Your task to perform on an android device: turn pop-ups off in chrome Image 0: 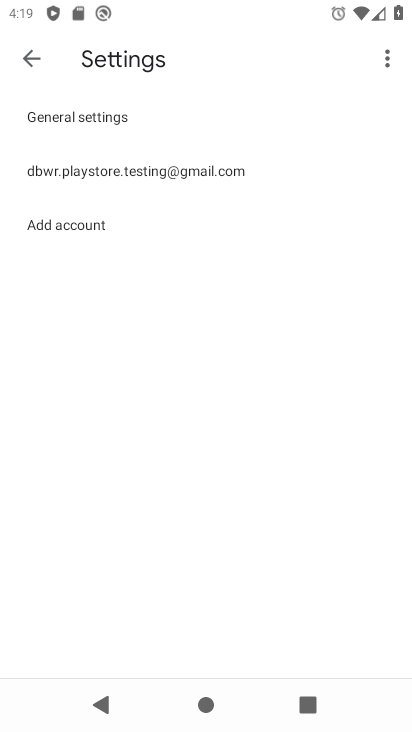
Step 0: drag from (307, 453) to (287, 187)
Your task to perform on an android device: turn pop-ups off in chrome Image 1: 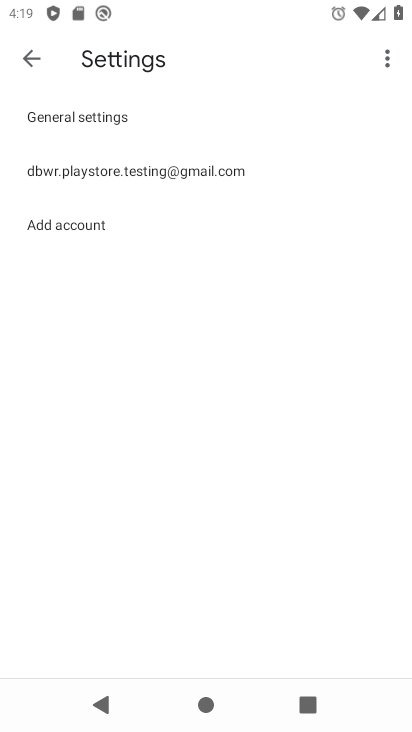
Step 1: press home button
Your task to perform on an android device: turn pop-ups off in chrome Image 2: 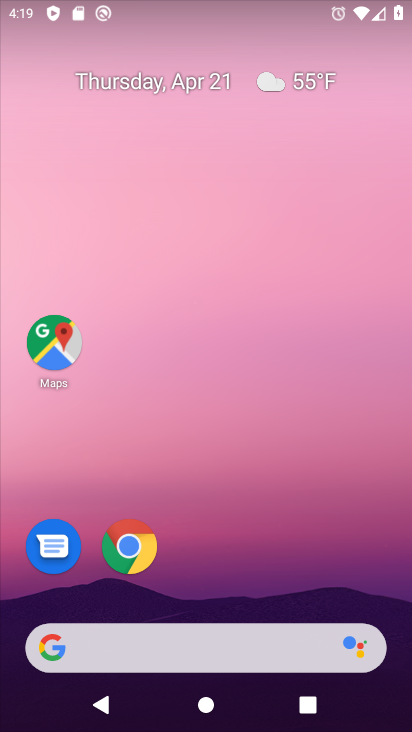
Step 2: drag from (253, 510) to (238, 182)
Your task to perform on an android device: turn pop-ups off in chrome Image 3: 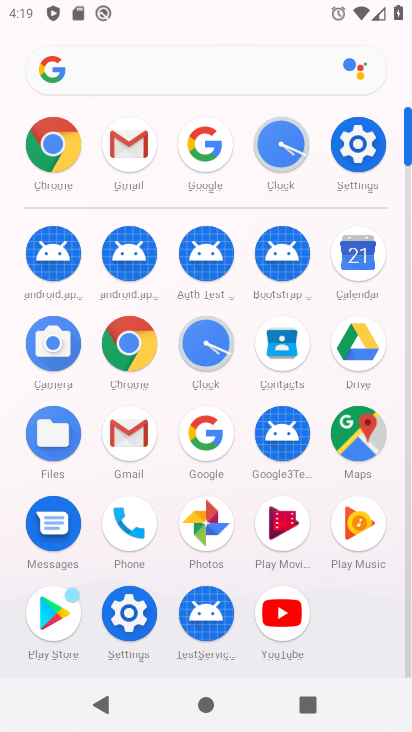
Step 3: click (129, 343)
Your task to perform on an android device: turn pop-ups off in chrome Image 4: 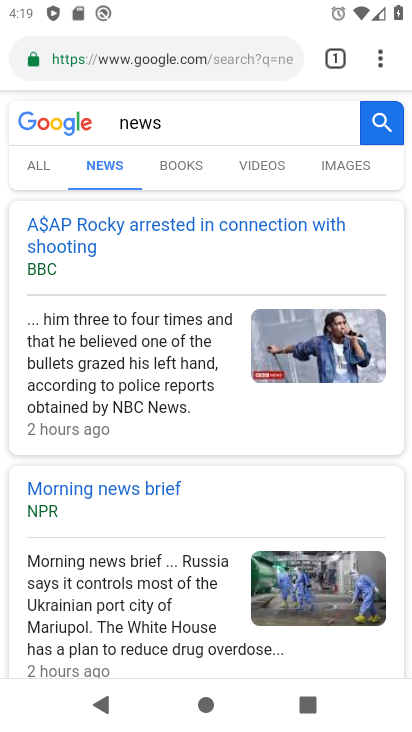
Step 4: drag from (378, 58) to (225, 570)
Your task to perform on an android device: turn pop-ups off in chrome Image 5: 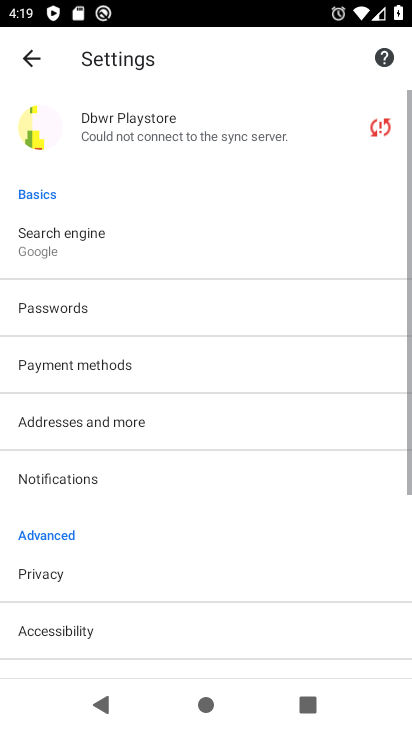
Step 5: drag from (228, 566) to (276, 151)
Your task to perform on an android device: turn pop-ups off in chrome Image 6: 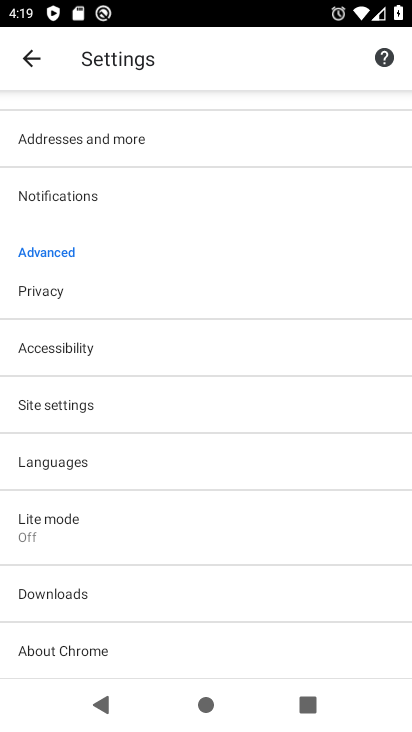
Step 6: click (84, 399)
Your task to perform on an android device: turn pop-ups off in chrome Image 7: 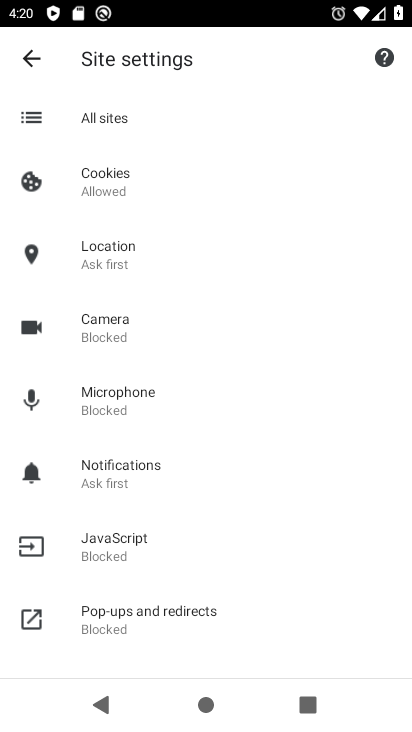
Step 7: click (199, 604)
Your task to perform on an android device: turn pop-ups off in chrome Image 8: 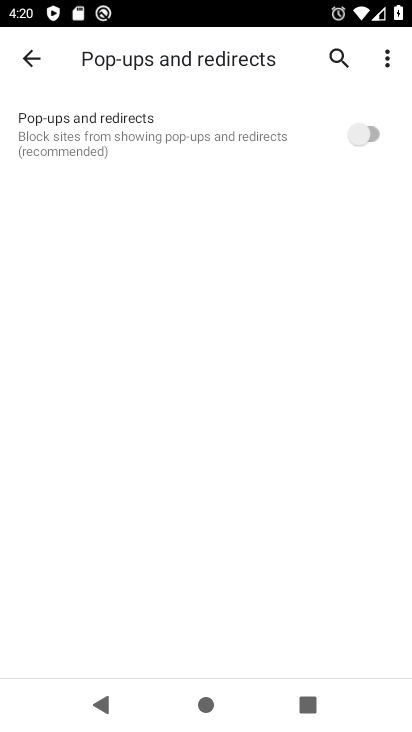
Step 8: task complete